Your task to perform on an android device: turn pop-ups off in chrome Image 0: 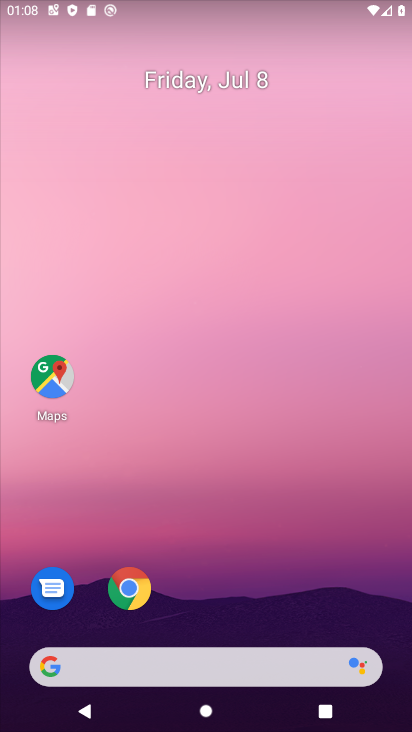
Step 0: drag from (191, 583) to (157, 13)
Your task to perform on an android device: turn pop-ups off in chrome Image 1: 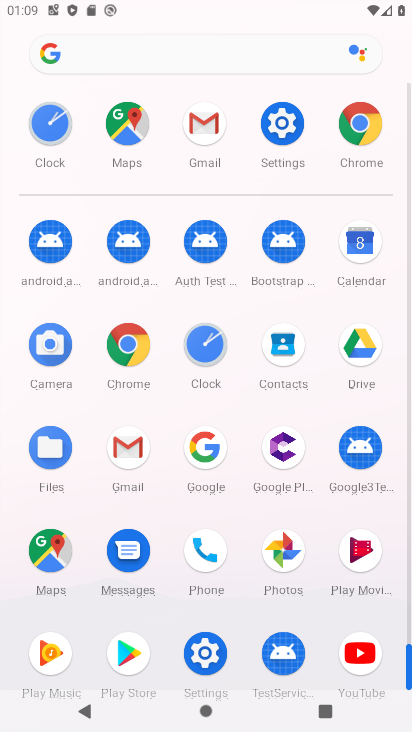
Step 1: click (124, 349)
Your task to perform on an android device: turn pop-ups off in chrome Image 2: 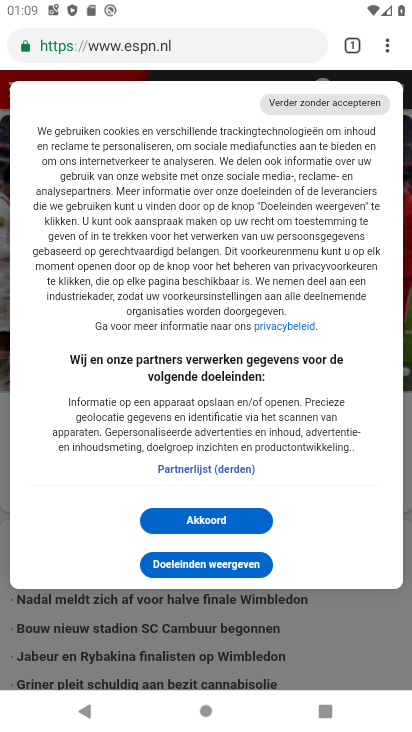
Step 2: drag from (256, 465) to (223, 235)
Your task to perform on an android device: turn pop-ups off in chrome Image 3: 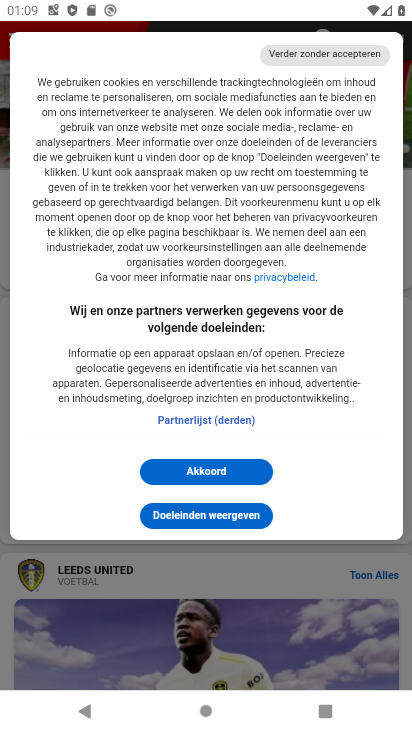
Step 3: drag from (204, 170) to (93, 548)
Your task to perform on an android device: turn pop-ups off in chrome Image 4: 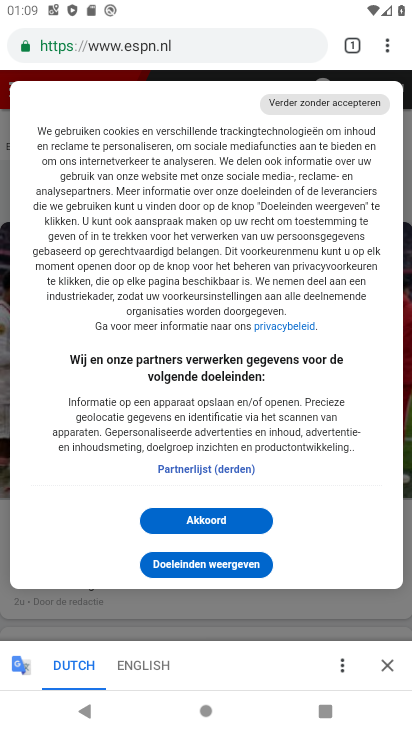
Step 4: click (384, 53)
Your task to perform on an android device: turn pop-ups off in chrome Image 5: 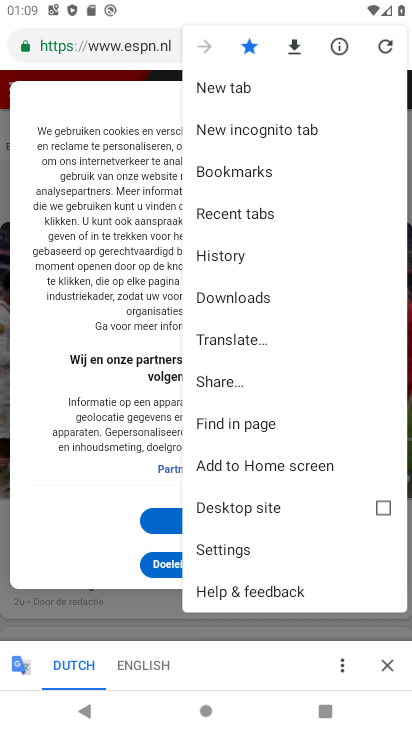
Step 5: drag from (312, 456) to (292, 69)
Your task to perform on an android device: turn pop-ups off in chrome Image 6: 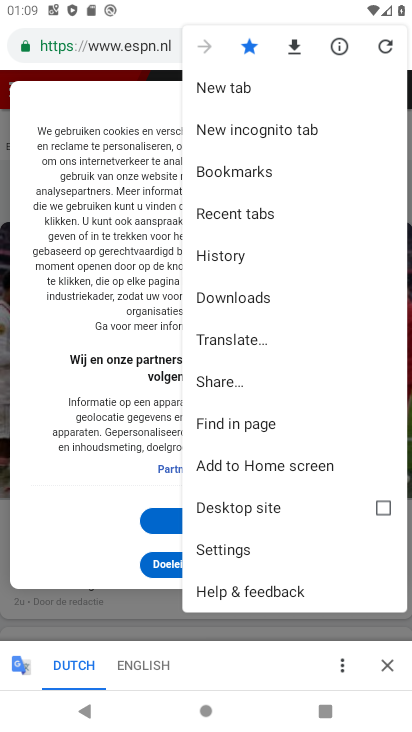
Step 6: click (239, 548)
Your task to perform on an android device: turn pop-ups off in chrome Image 7: 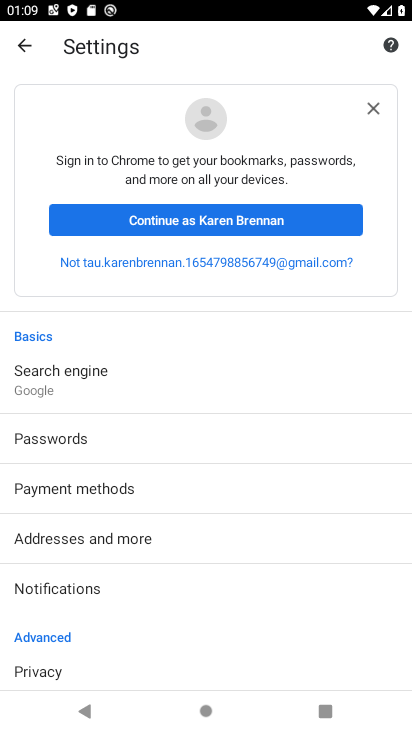
Step 7: drag from (79, 591) to (94, 268)
Your task to perform on an android device: turn pop-ups off in chrome Image 8: 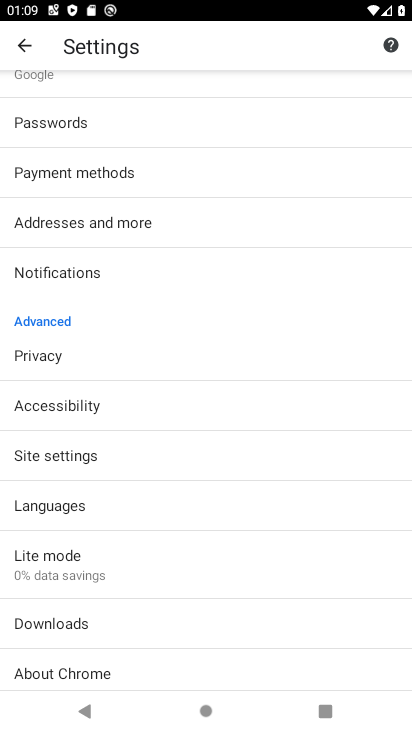
Step 8: click (125, 451)
Your task to perform on an android device: turn pop-ups off in chrome Image 9: 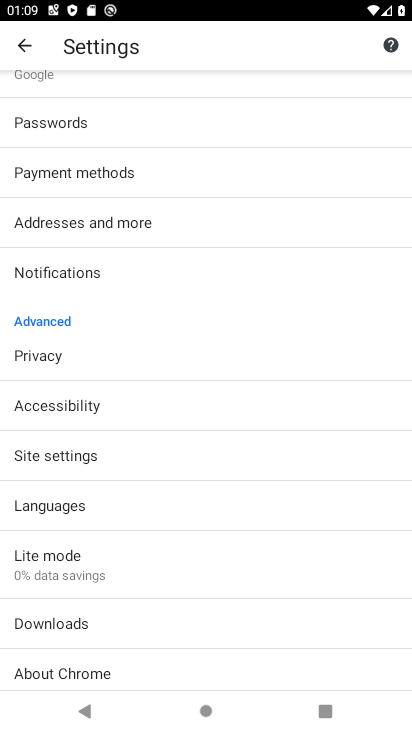
Step 9: click (125, 451)
Your task to perform on an android device: turn pop-ups off in chrome Image 10: 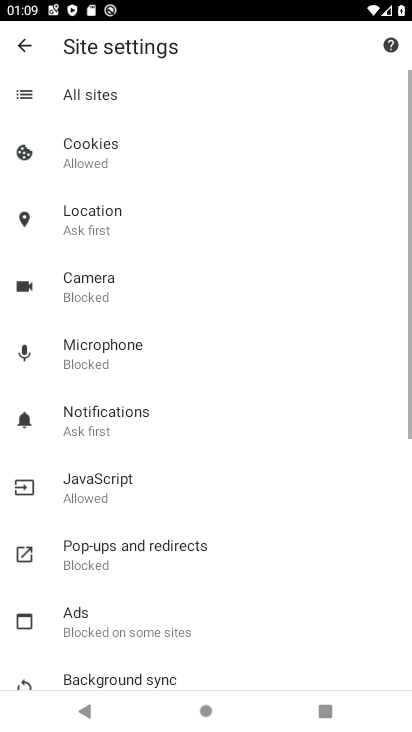
Step 10: drag from (227, 665) to (231, 438)
Your task to perform on an android device: turn pop-ups off in chrome Image 11: 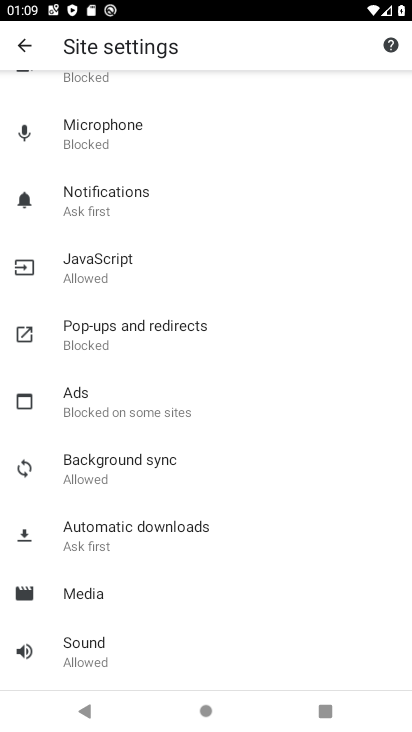
Step 11: click (146, 316)
Your task to perform on an android device: turn pop-ups off in chrome Image 12: 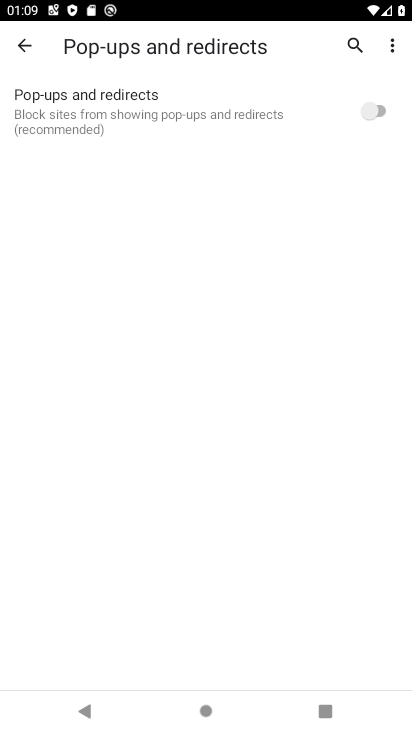
Step 12: task complete